Your task to perform on an android device: turn off picture-in-picture Image 0: 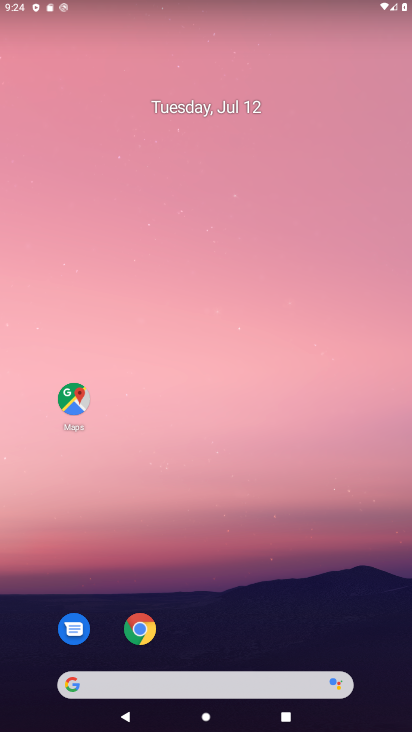
Step 0: drag from (191, 623) to (275, 104)
Your task to perform on an android device: turn off picture-in-picture Image 1: 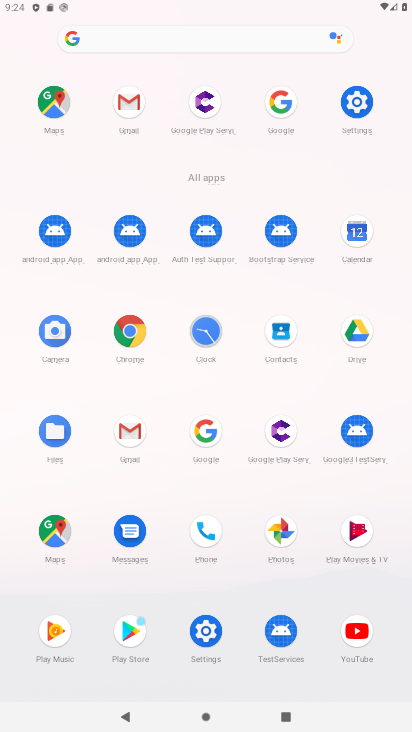
Step 1: click (208, 631)
Your task to perform on an android device: turn off picture-in-picture Image 2: 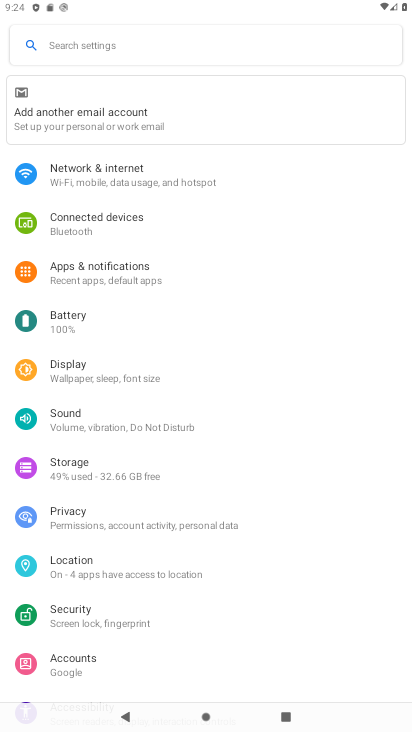
Step 2: click (117, 275)
Your task to perform on an android device: turn off picture-in-picture Image 3: 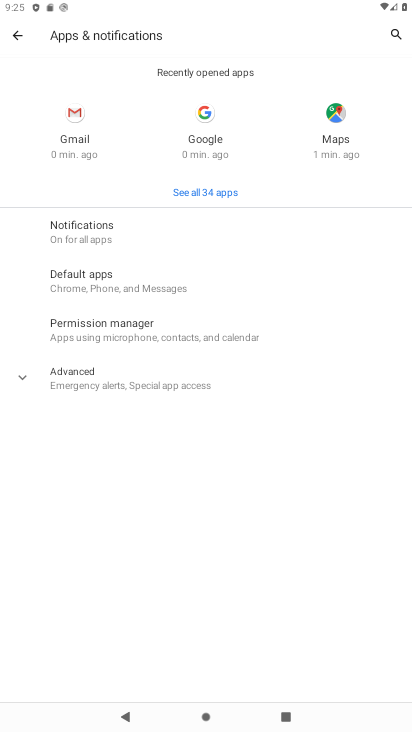
Step 3: click (183, 375)
Your task to perform on an android device: turn off picture-in-picture Image 4: 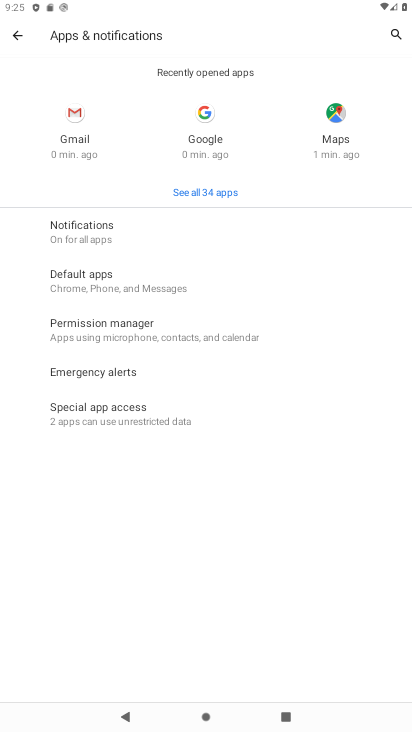
Step 4: click (152, 408)
Your task to perform on an android device: turn off picture-in-picture Image 5: 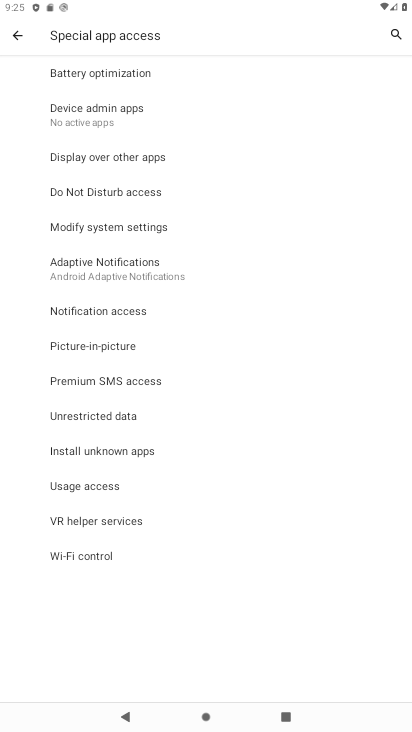
Step 5: click (141, 345)
Your task to perform on an android device: turn off picture-in-picture Image 6: 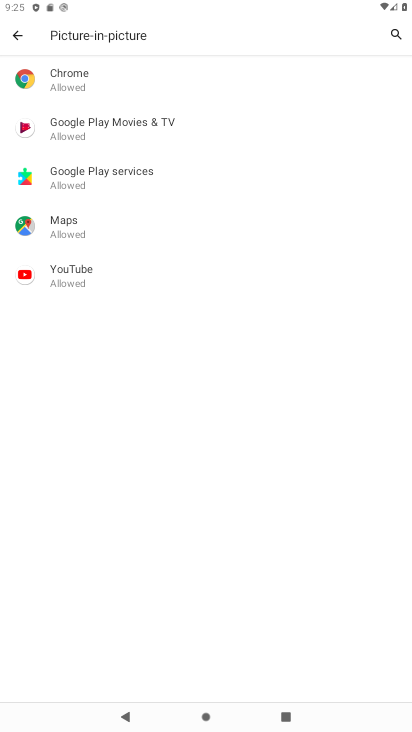
Step 6: click (181, 85)
Your task to perform on an android device: turn off picture-in-picture Image 7: 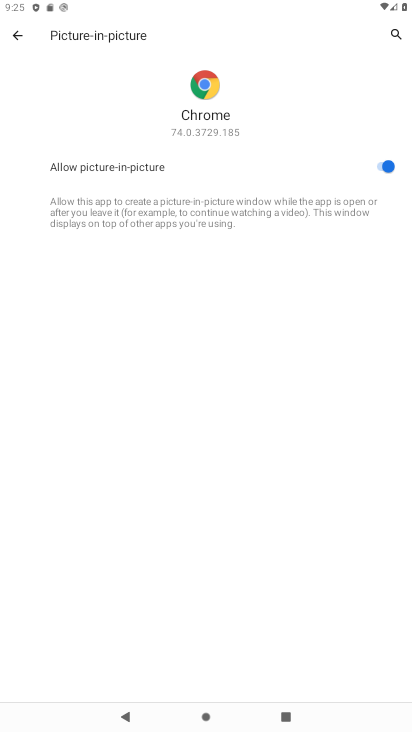
Step 7: click (387, 163)
Your task to perform on an android device: turn off picture-in-picture Image 8: 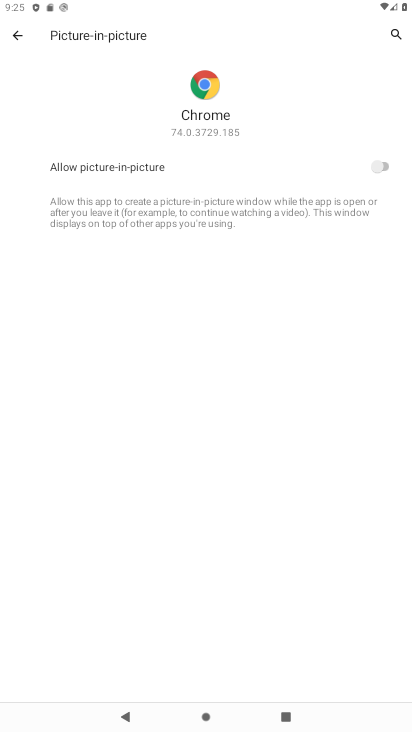
Step 8: press back button
Your task to perform on an android device: turn off picture-in-picture Image 9: 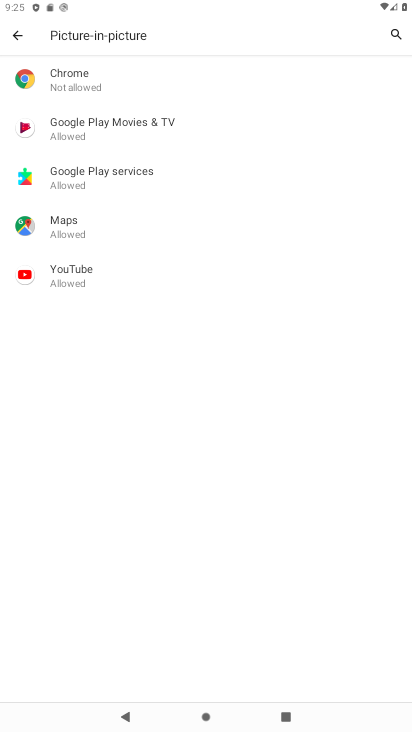
Step 9: click (145, 131)
Your task to perform on an android device: turn off picture-in-picture Image 10: 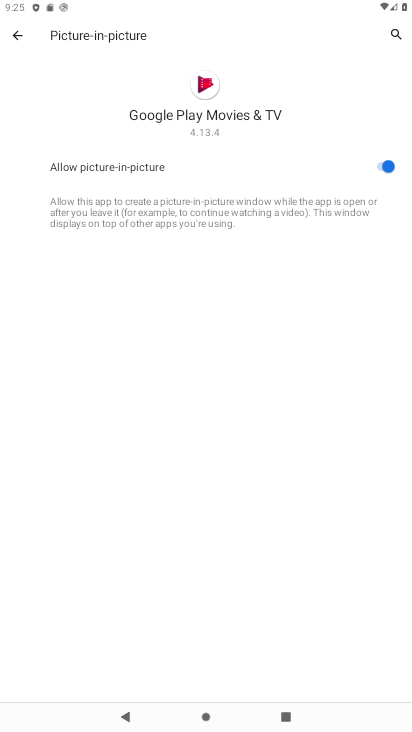
Step 10: click (379, 163)
Your task to perform on an android device: turn off picture-in-picture Image 11: 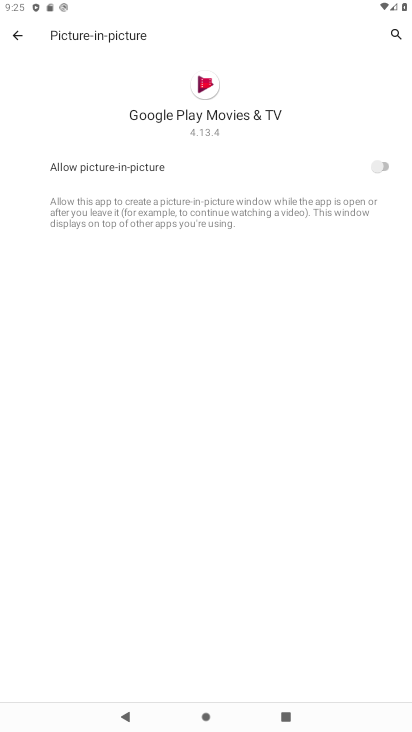
Step 11: press back button
Your task to perform on an android device: turn off picture-in-picture Image 12: 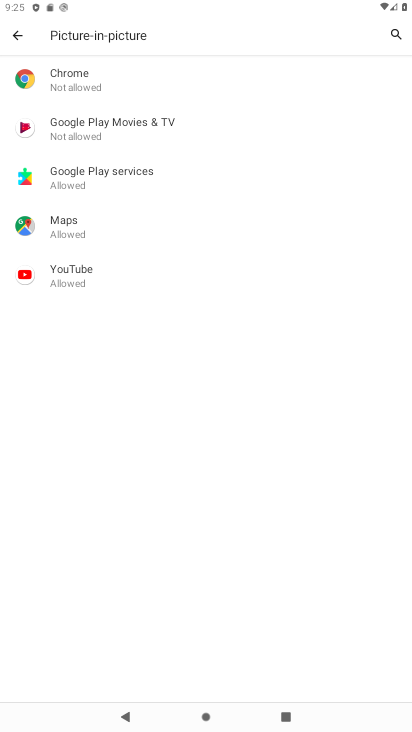
Step 12: click (131, 187)
Your task to perform on an android device: turn off picture-in-picture Image 13: 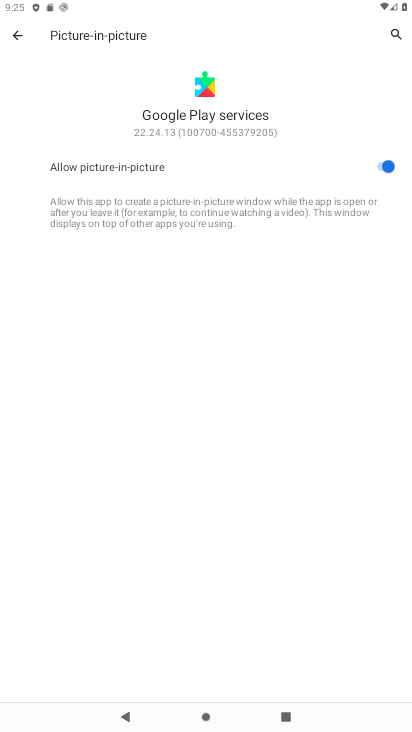
Step 13: click (378, 161)
Your task to perform on an android device: turn off picture-in-picture Image 14: 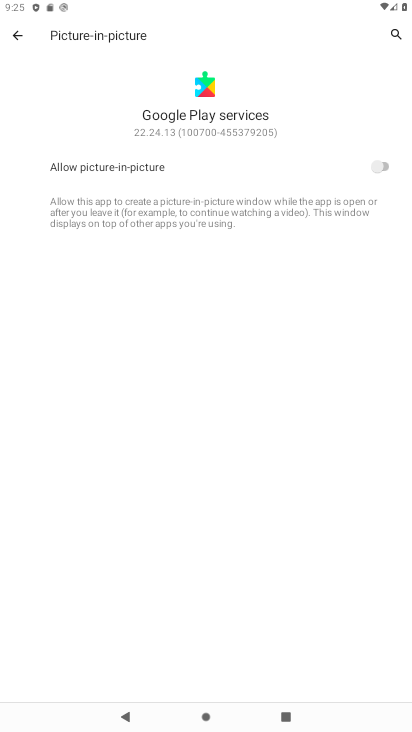
Step 14: press back button
Your task to perform on an android device: turn off picture-in-picture Image 15: 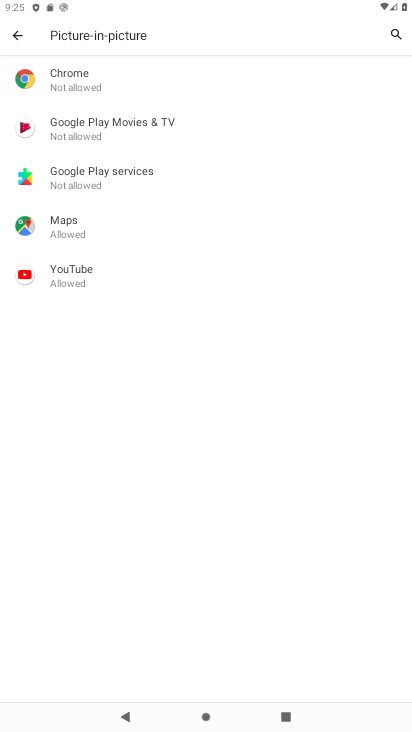
Step 15: click (155, 229)
Your task to perform on an android device: turn off picture-in-picture Image 16: 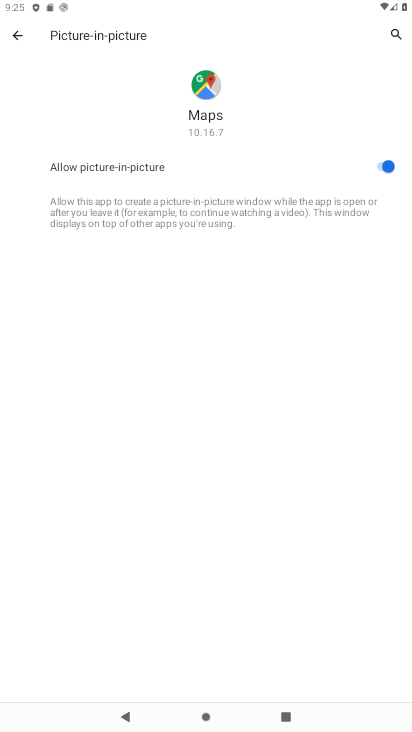
Step 16: click (378, 161)
Your task to perform on an android device: turn off picture-in-picture Image 17: 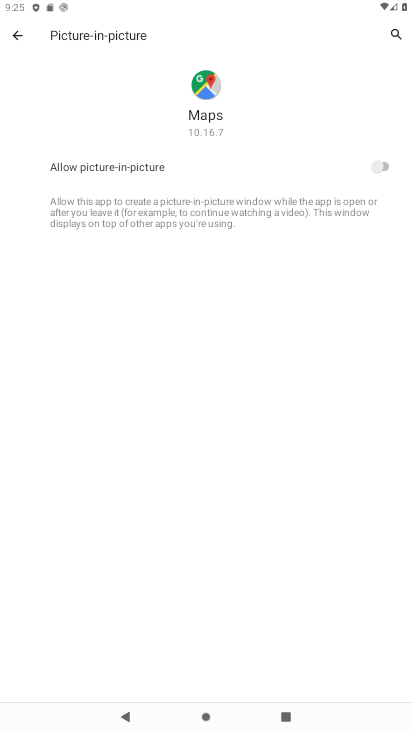
Step 17: press back button
Your task to perform on an android device: turn off picture-in-picture Image 18: 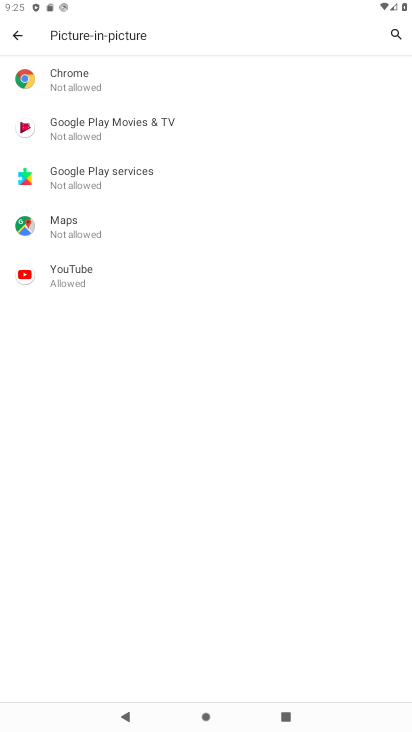
Step 18: click (130, 261)
Your task to perform on an android device: turn off picture-in-picture Image 19: 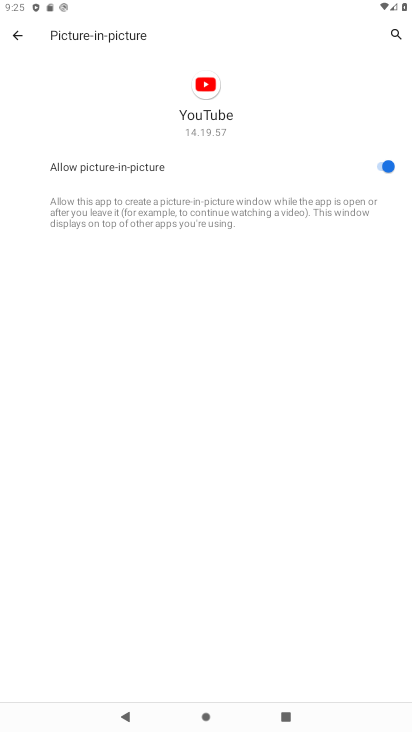
Step 19: click (380, 166)
Your task to perform on an android device: turn off picture-in-picture Image 20: 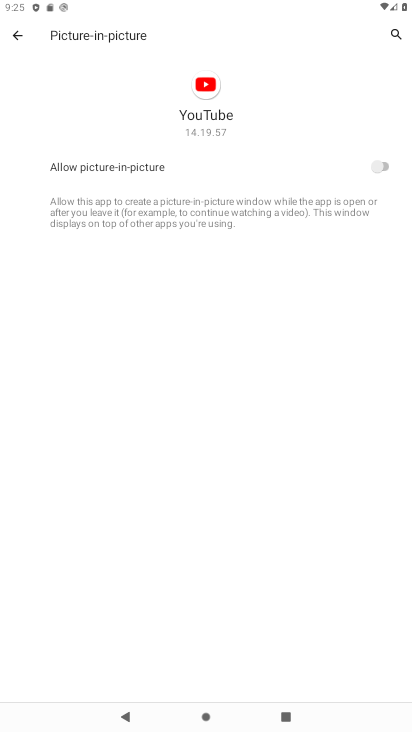
Step 20: task complete